Your task to perform on an android device: Go to battery settings Image 0: 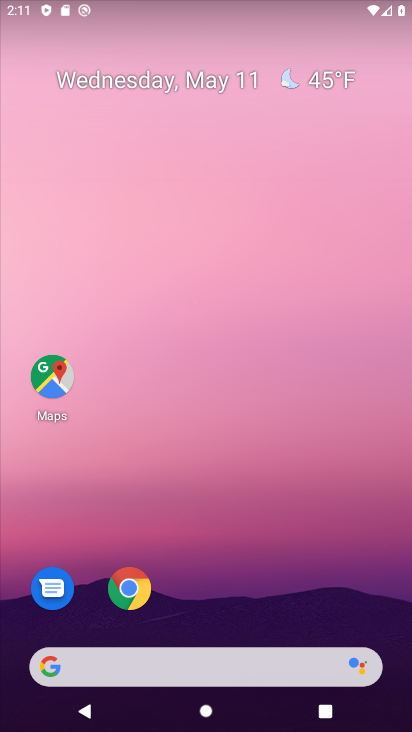
Step 0: drag from (181, 616) to (269, 126)
Your task to perform on an android device: Go to battery settings Image 1: 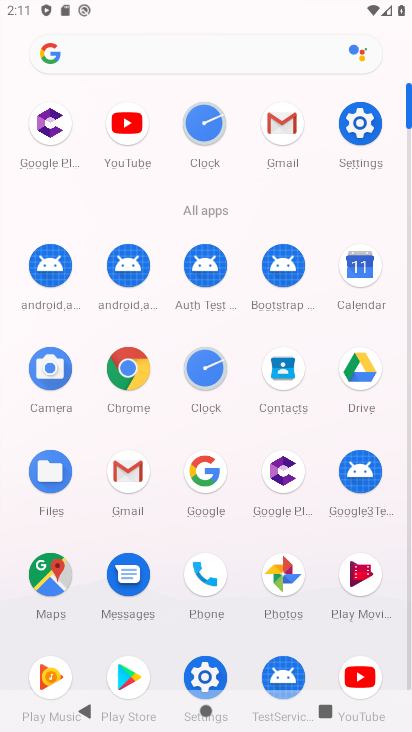
Step 1: click (351, 124)
Your task to perform on an android device: Go to battery settings Image 2: 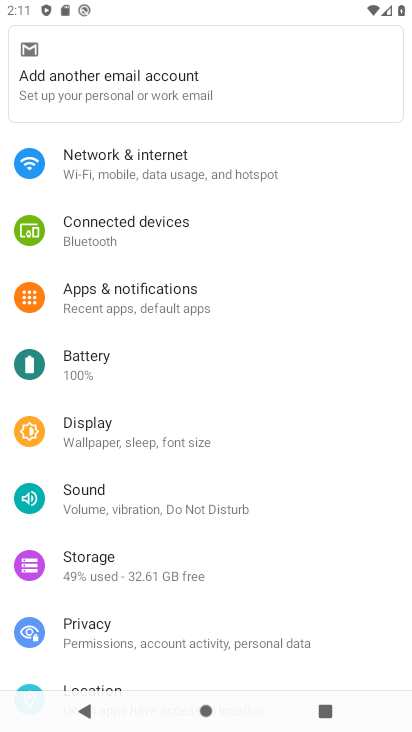
Step 2: drag from (158, 559) to (231, 283)
Your task to perform on an android device: Go to battery settings Image 3: 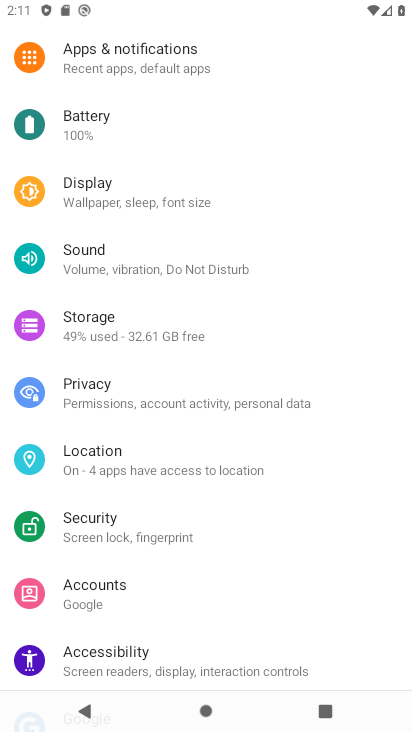
Step 3: click (112, 132)
Your task to perform on an android device: Go to battery settings Image 4: 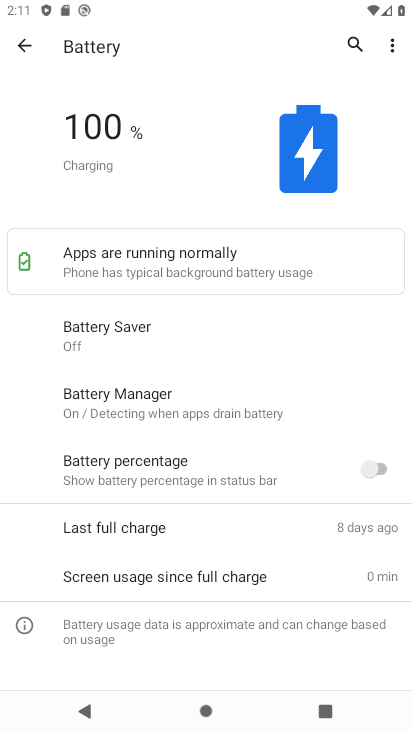
Step 4: task complete